Your task to perform on an android device: Show me productivity apps on the Play Store Image 0: 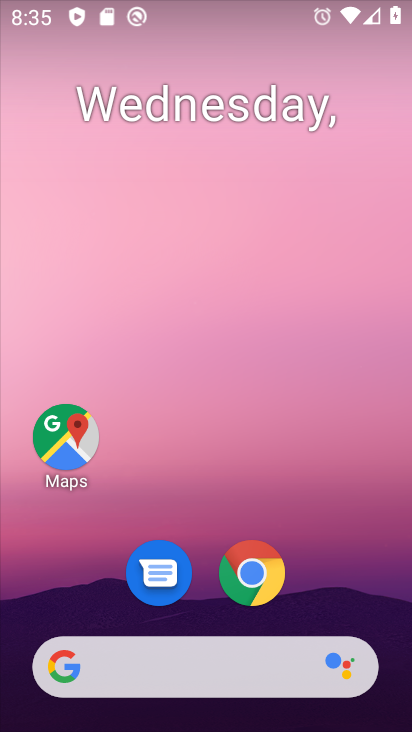
Step 0: drag from (257, 677) to (121, 135)
Your task to perform on an android device: Show me productivity apps on the Play Store Image 1: 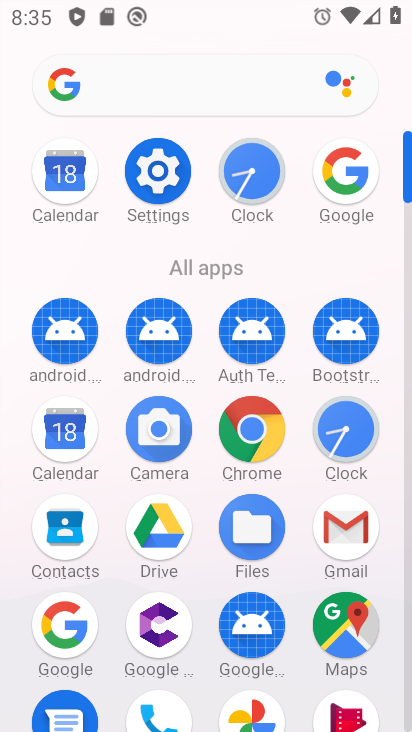
Step 1: drag from (142, 628) to (124, 181)
Your task to perform on an android device: Show me productivity apps on the Play Store Image 2: 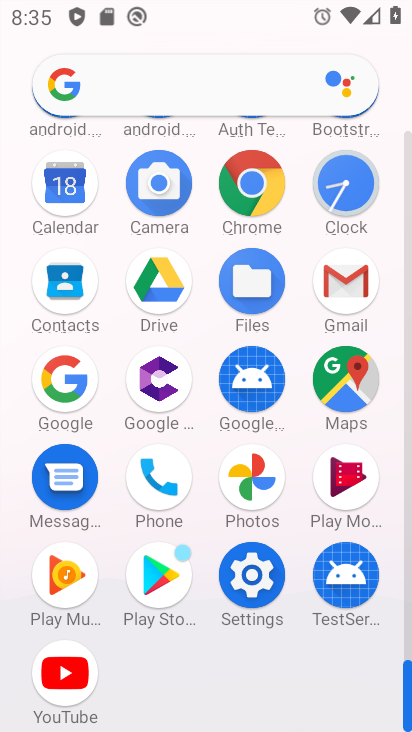
Step 2: click (158, 573)
Your task to perform on an android device: Show me productivity apps on the Play Store Image 3: 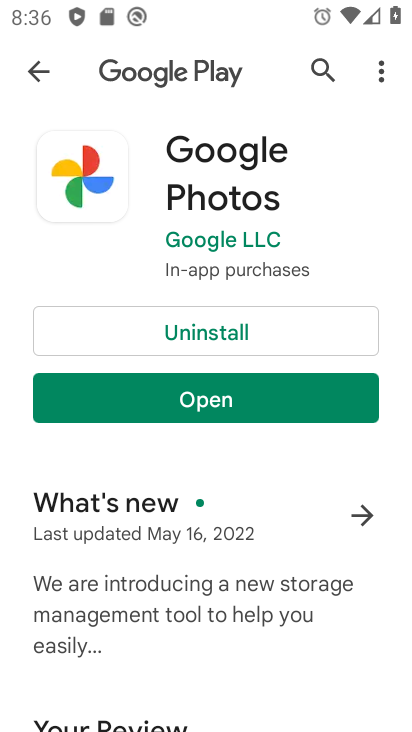
Step 3: click (27, 62)
Your task to perform on an android device: Show me productivity apps on the Play Store Image 4: 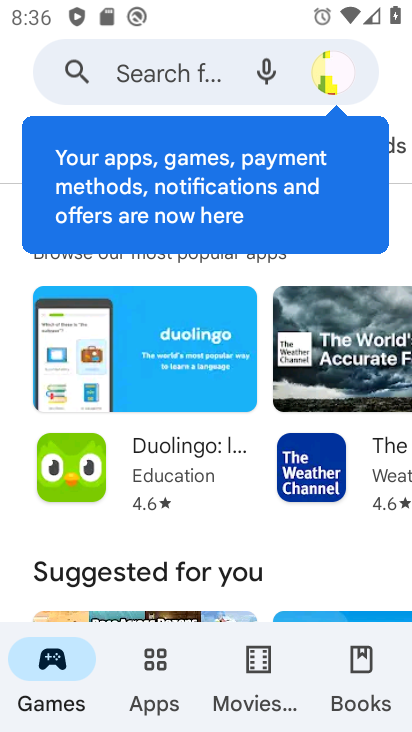
Step 4: click (127, 77)
Your task to perform on an android device: Show me productivity apps on the Play Store Image 5: 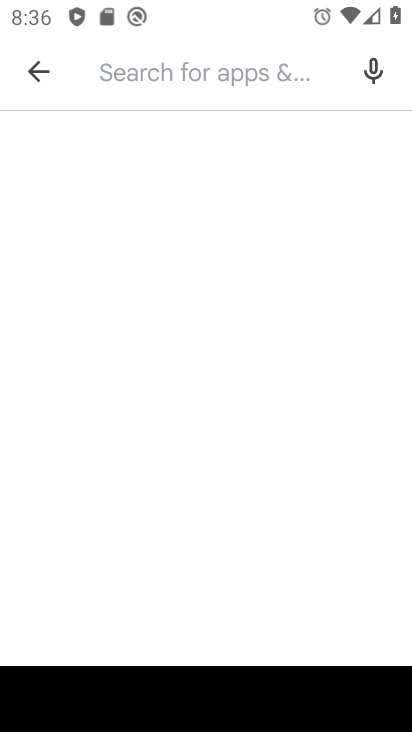
Step 5: type "productivity aaps"
Your task to perform on an android device: Show me productivity apps on the Play Store Image 6: 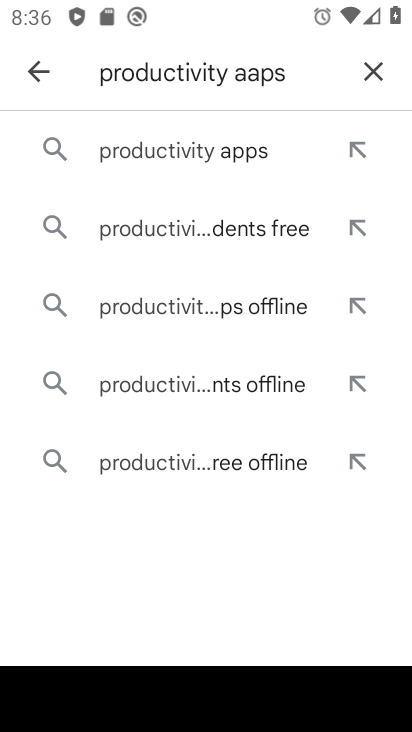
Step 6: click (213, 162)
Your task to perform on an android device: Show me productivity apps on the Play Store Image 7: 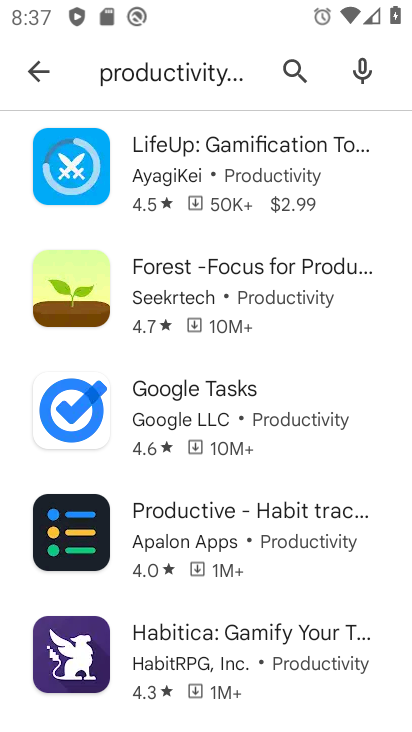
Step 7: task complete